Your task to perform on an android device: empty trash in google photos Image 0: 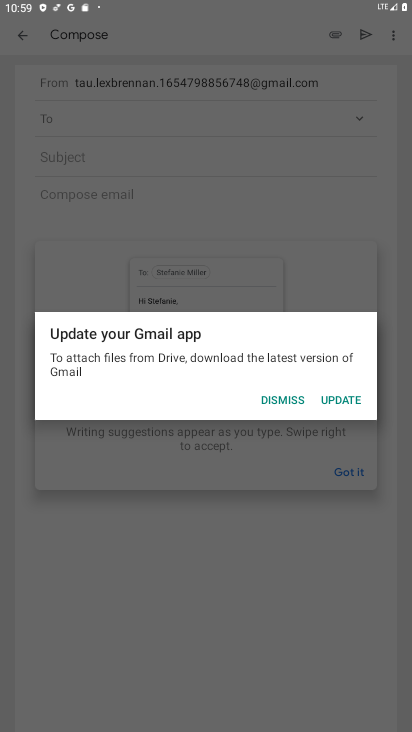
Step 0: press home button
Your task to perform on an android device: empty trash in google photos Image 1: 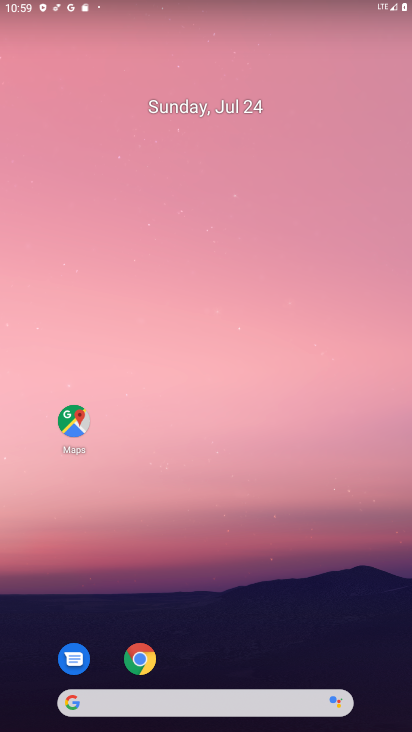
Step 1: drag from (221, 652) to (197, 84)
Your task to perform on an android device: empty trash in google photos Image 2: 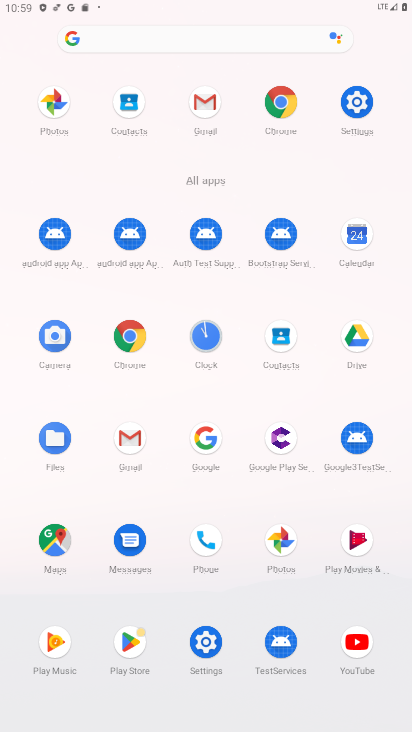
Step 2: click (54, 102)
Your task to perform on an android device: empty trash in google photos Image 3: 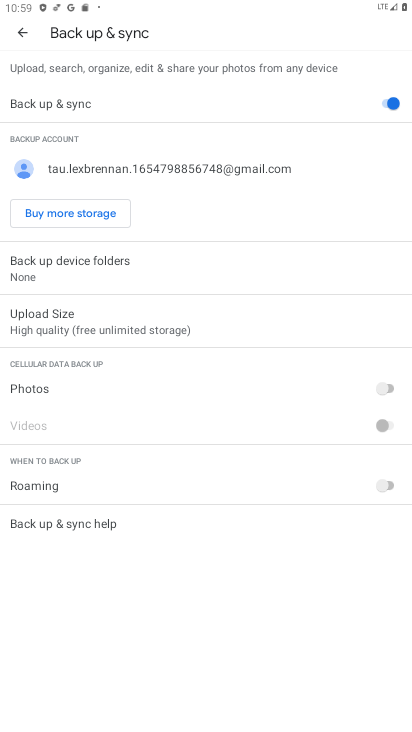
Step 3: click (25, 36)
Your task to perform on an android device: empty trash in google photos Image 4: 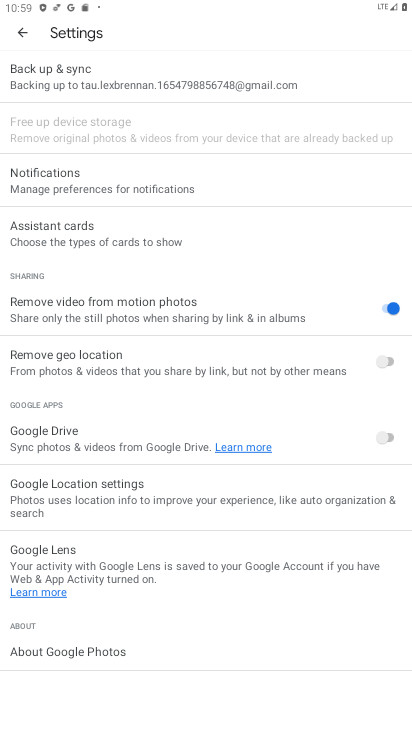
Step 4: click (25, 36)
Your task to perform on an android device: empty trash in google photos Image 5: 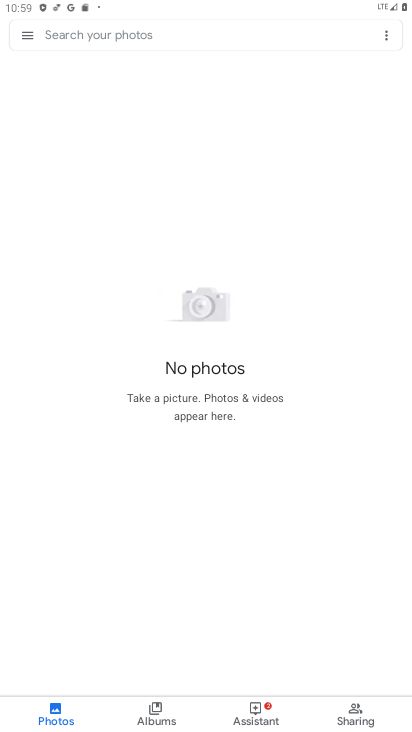
Step 5: click (25, 36)
Your task to perform on an android device: empty trash in google photos Image 6: 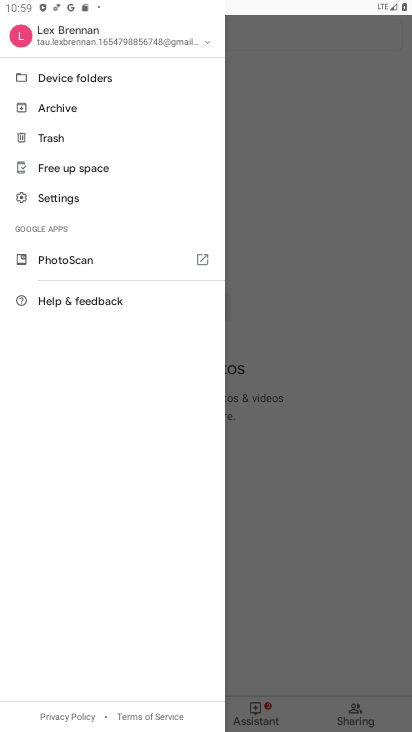
Step 6: click (60, 136)
Your task to perform on an android device: empty trash in google photos Image 7: 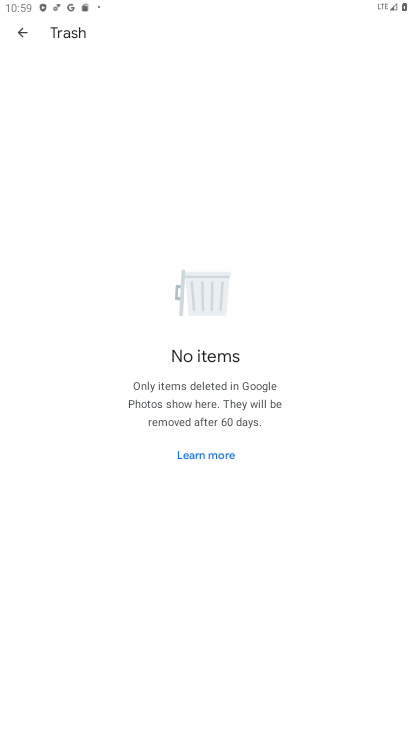
Step 7: task complete